Your task to perform on an android device: create a new album in the google photos Image 0: 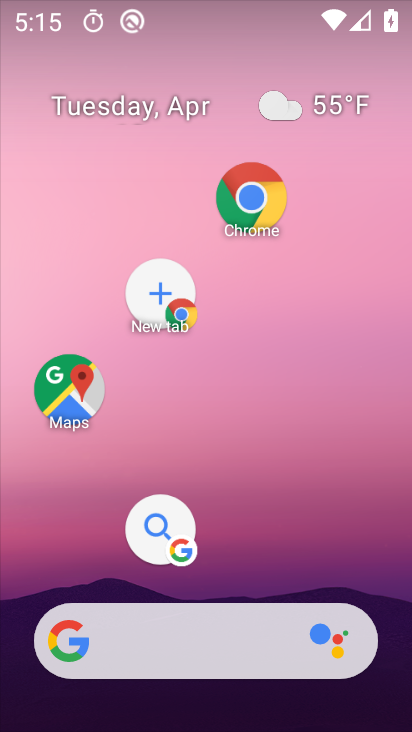
Step 0: drag from (217, 597) to (294, 115)
Your task to perform on an android device: create a new album in the google photos Image 1: 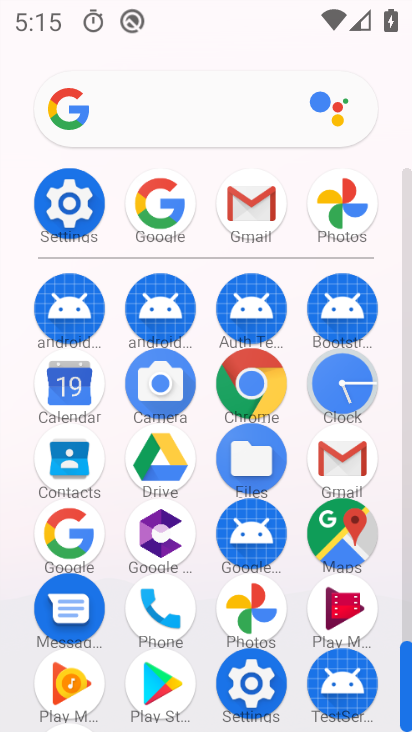
Step 1: click (333, 219)
Your task to perform on an android device: create a new album in the google photos Image 2: 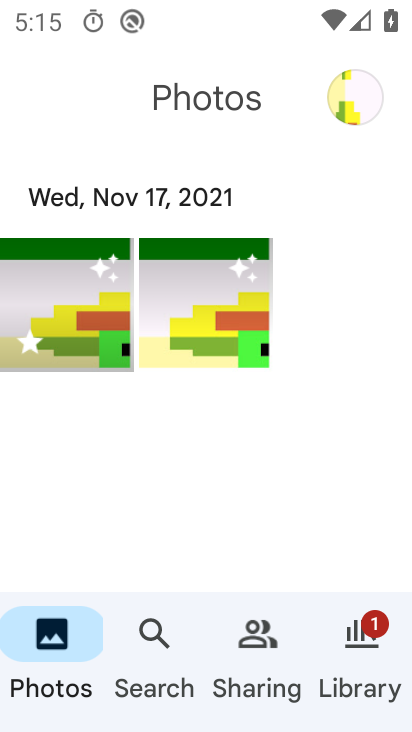
Step 2: click (22, 633)
Your task to perform on an android device: create a new album in the google photos Image 3: 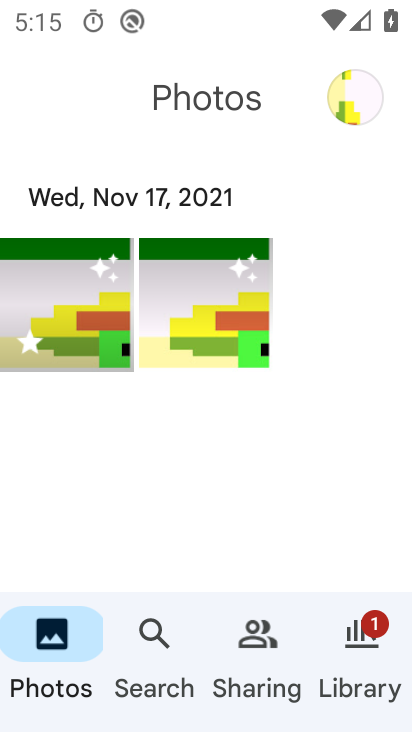
Step 3: click (155, 651)
Your task to perform on an android device: create a new album in the google photos Image 4: 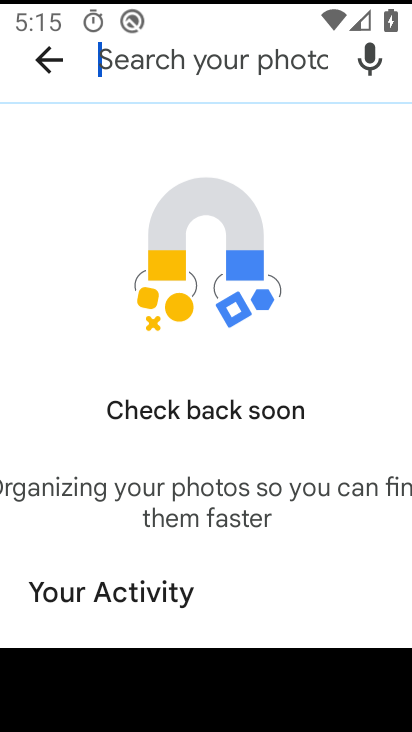
Step 4: task complete